Your task to perform on an android device: all mails in gmail Image 0: 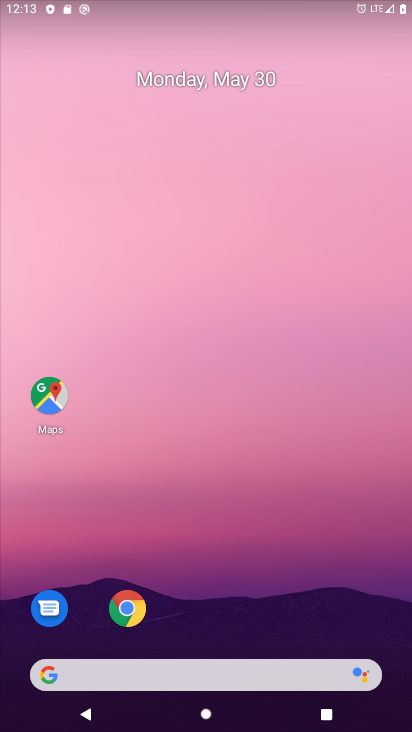
Step 0: drag from (192, 659) to (105, 23)
Your task to perform on an android device: all mails in gmail Image 1: 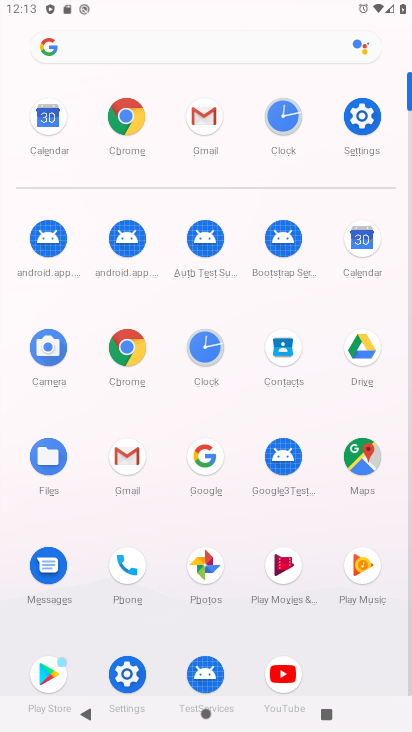
Step 1: click (112, 489)
Your task to perform on an android device: all mails in gmail Image 2: 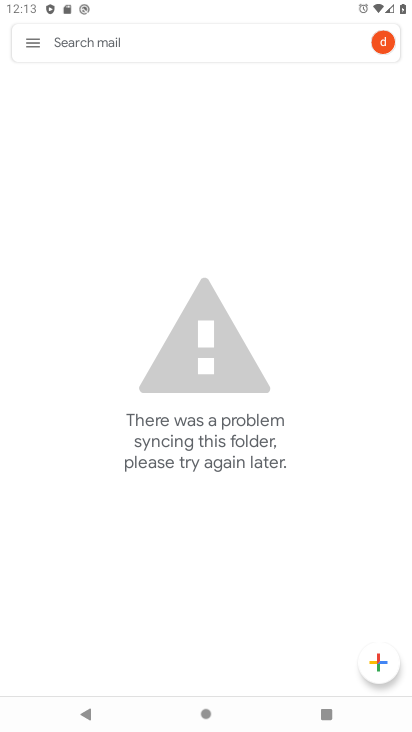
Step 2: click (32, 48)
Your task to perform on an android device: all mails in gmail Image 3: 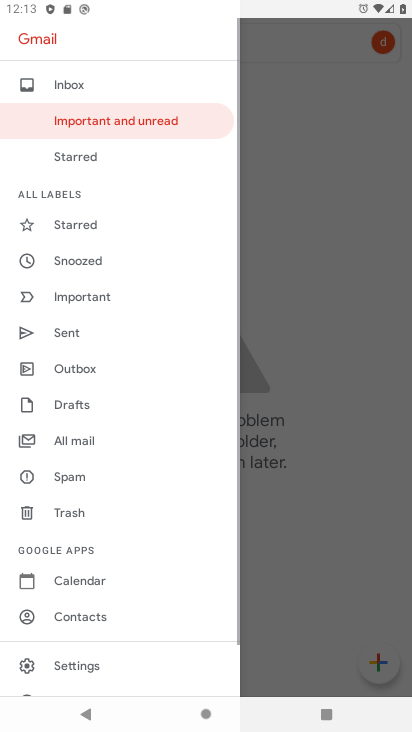
Step 3: click (98, 432)
Your task to perform on an android device: all mails in gmail Image 4: 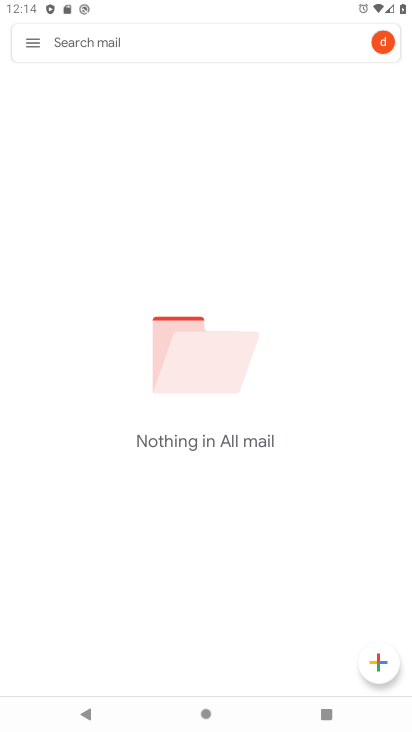
Step 4: task complete